Your task to perform on an android device: Open Chrome and go to settings Image 0: 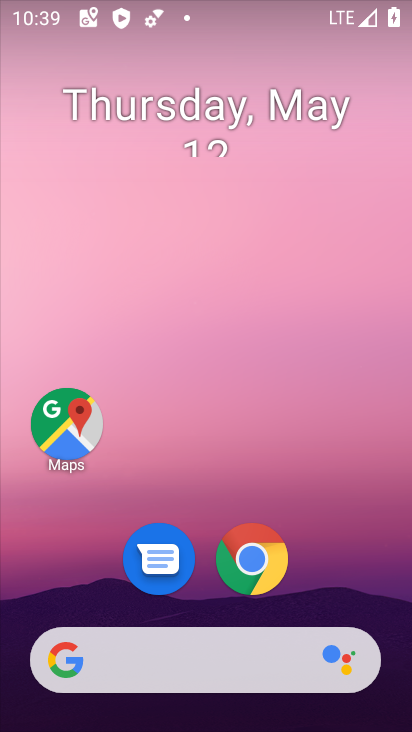
Step 0: click (259, 539)
Your task to perform on an android device: Open Chrome and go to settings Image 1: 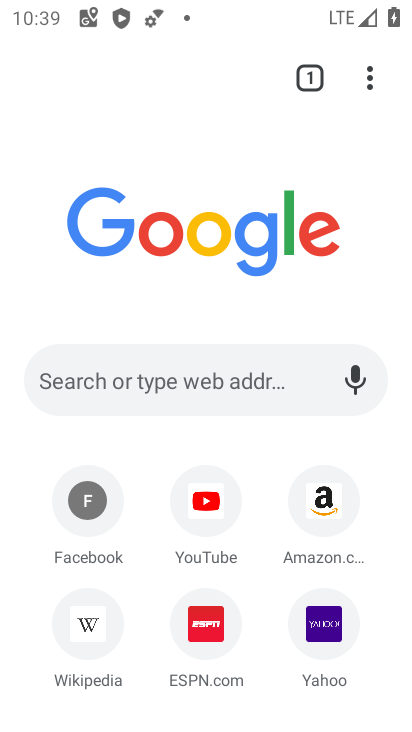
Step 1: task complete